Your task to perform on an android device: Is it going to rain this weekend? Image 0: 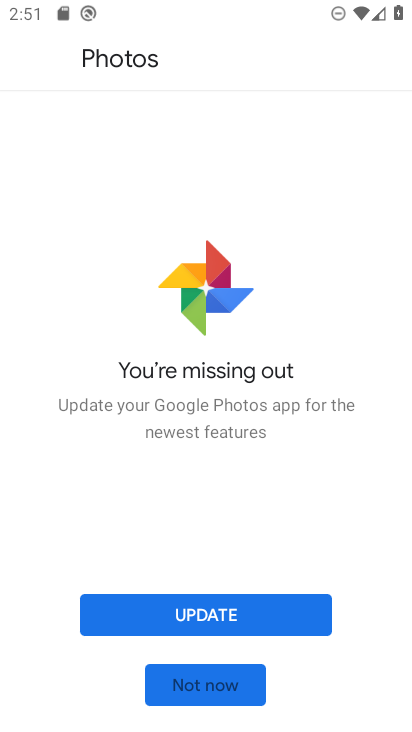
Step 0: press home button
Your task to perform on an android device: Is it going to rain this weekend? Image 1: 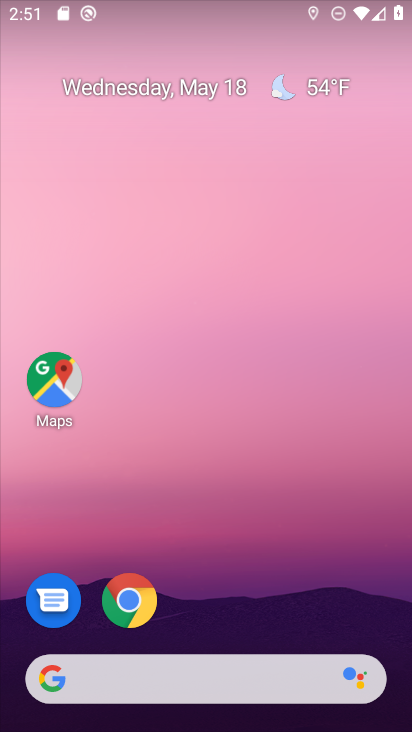
Step 1: click (283, 81)
Your task to perform on an android device: Is it going to rain this weekend? Image 2: 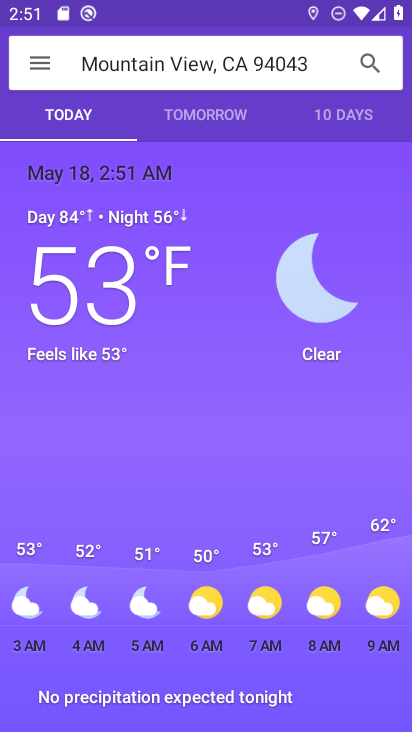
Step 2: click (339, 113)
Your task to perform on an android device: Is it going to rain this weekend? Image 3: 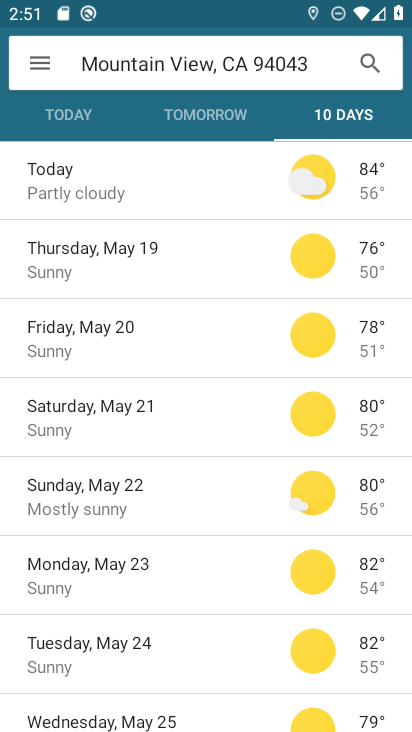
Step 3: task complete